Your task to perform on an android device: Go to Google maps Image 0: 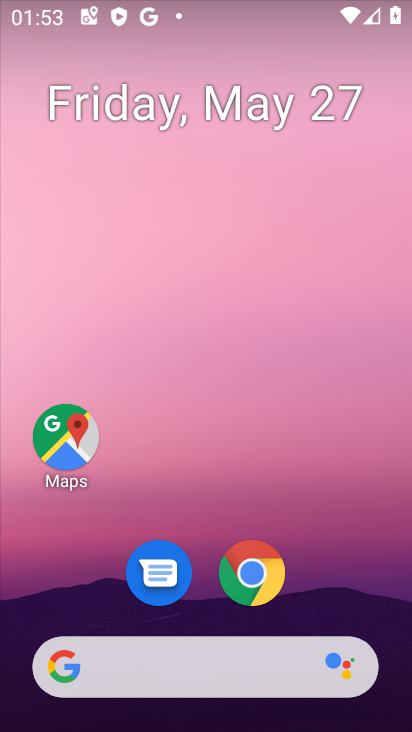
Step 0: drag from (204, 615) to (172, 84)
Your task to perform on an android device: Go to Google maps Image 1: 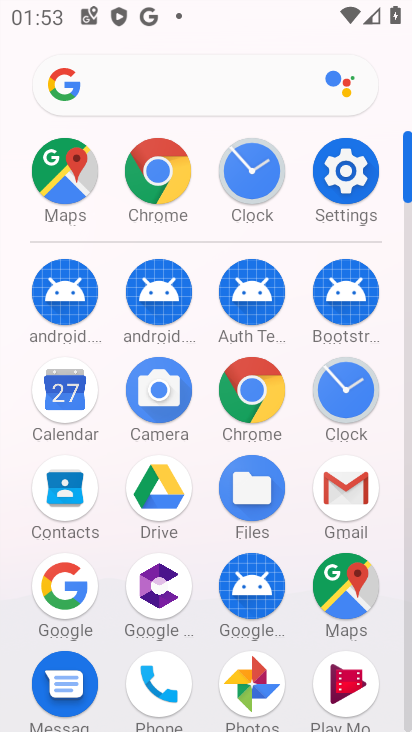
Step 1: click (333, 589)
Your task to perform on an android device: Go to Google maps Image 2: 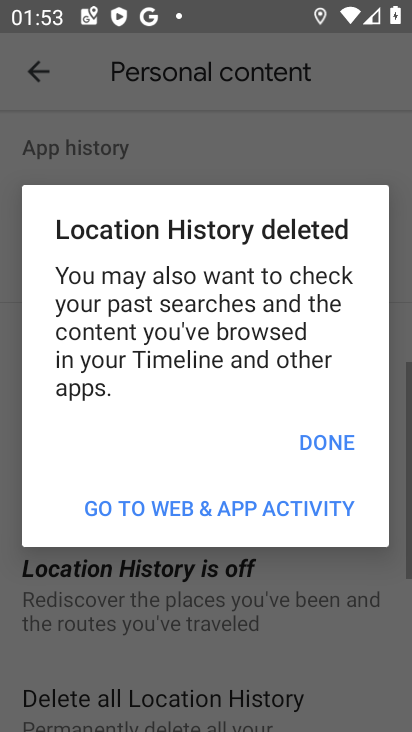
Step 2: click (321, 453)
Your task to perform on an android device: Go to Google maps Image 3: 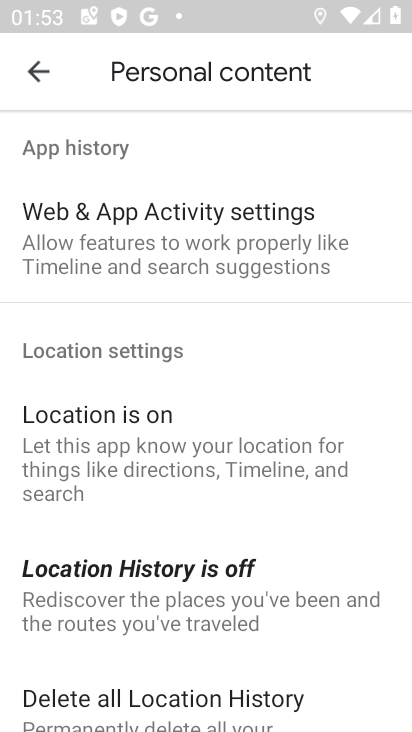
Step 3: click (26, 53)
Your task to perform on an android device: Go to Google maps Image 4: 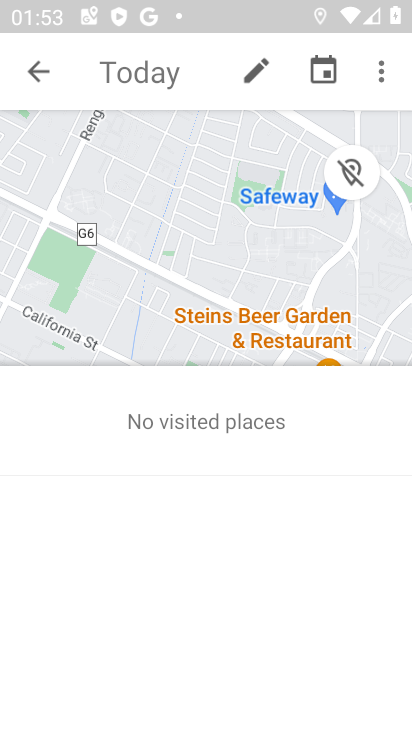
Step 4: click (41, 68)
Your task to perform on an android device: Go to Google maps Image 5: 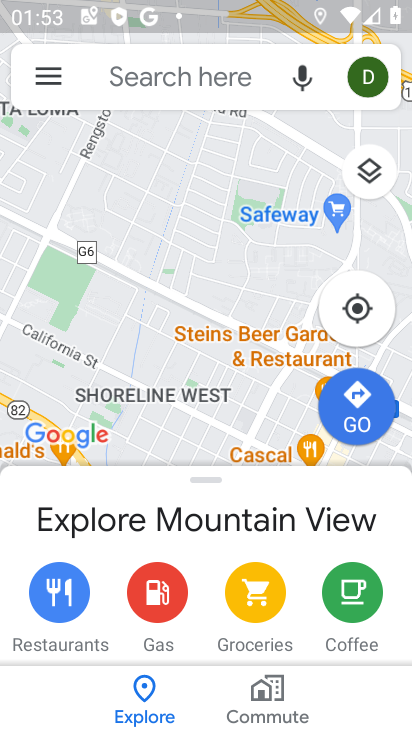
Step 5: task complete